Your task to perform on an android device: open a new tab in the chrome app Image 0: 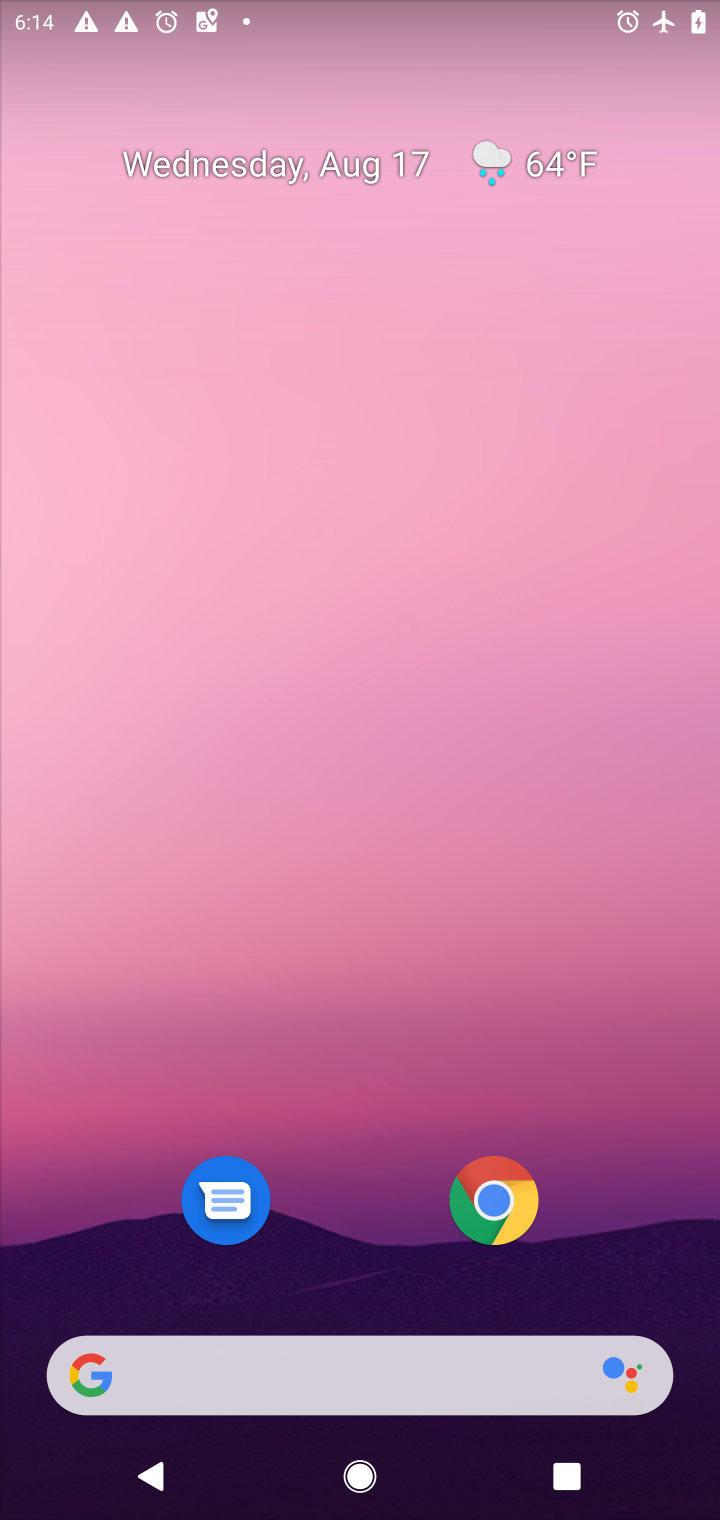
Step 0: drag from (334, 1292) to (291, 225)
Your task to perform on an android device: open a new tab in the chrome app Image 1: 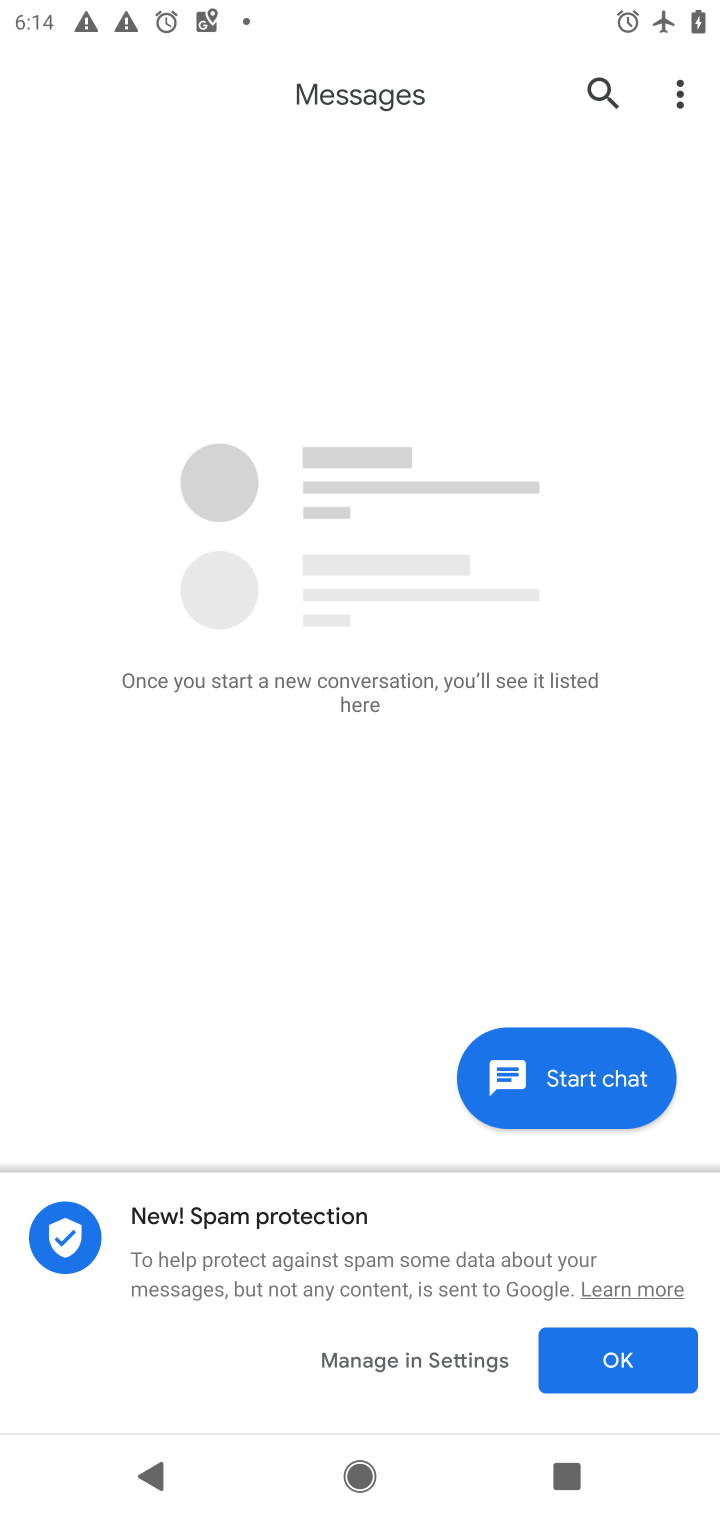
Step 1: press home button
Your task to perform on an android device: open a new tab in the chrome app Image 2: 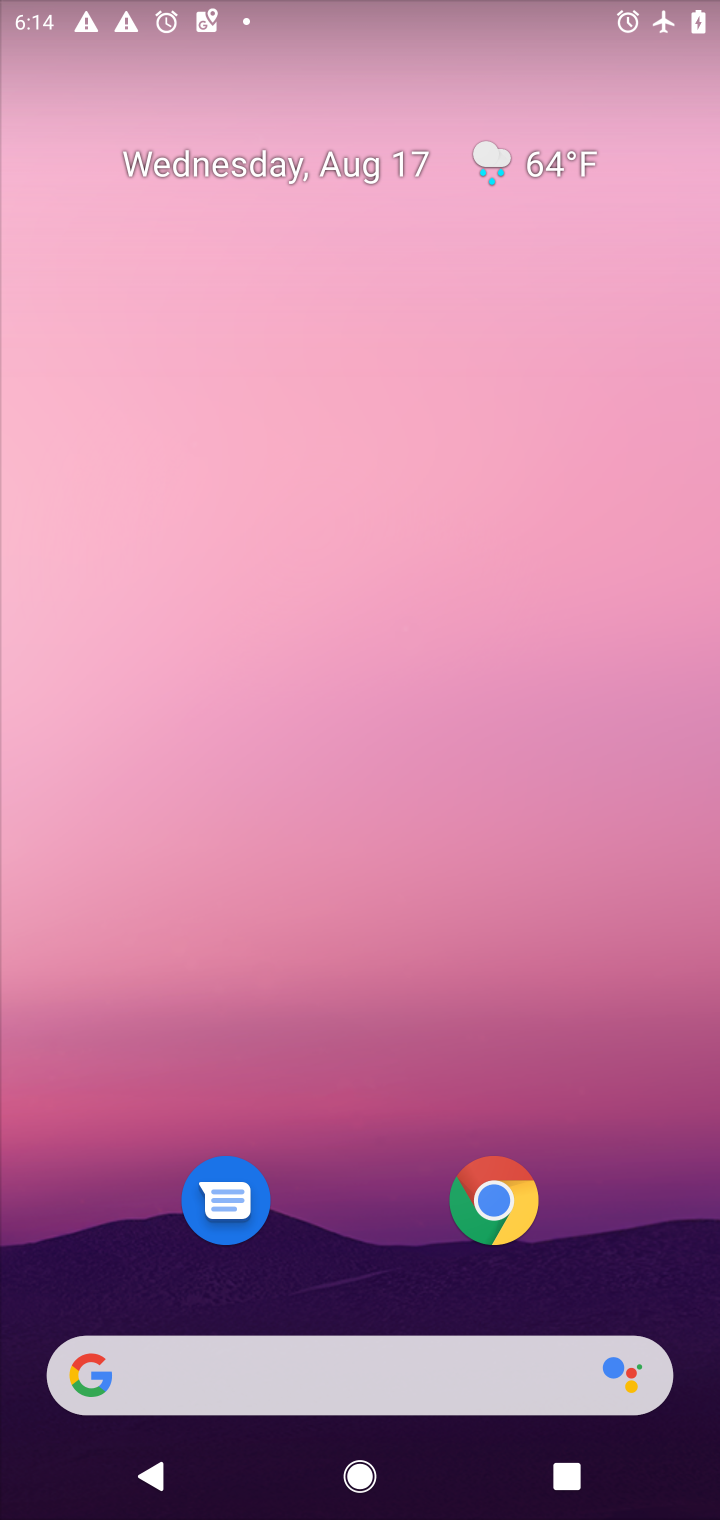
Step 2: click (494, 1199)
Your task to perform on an android device: open a new tab in the chrome app Image 3: 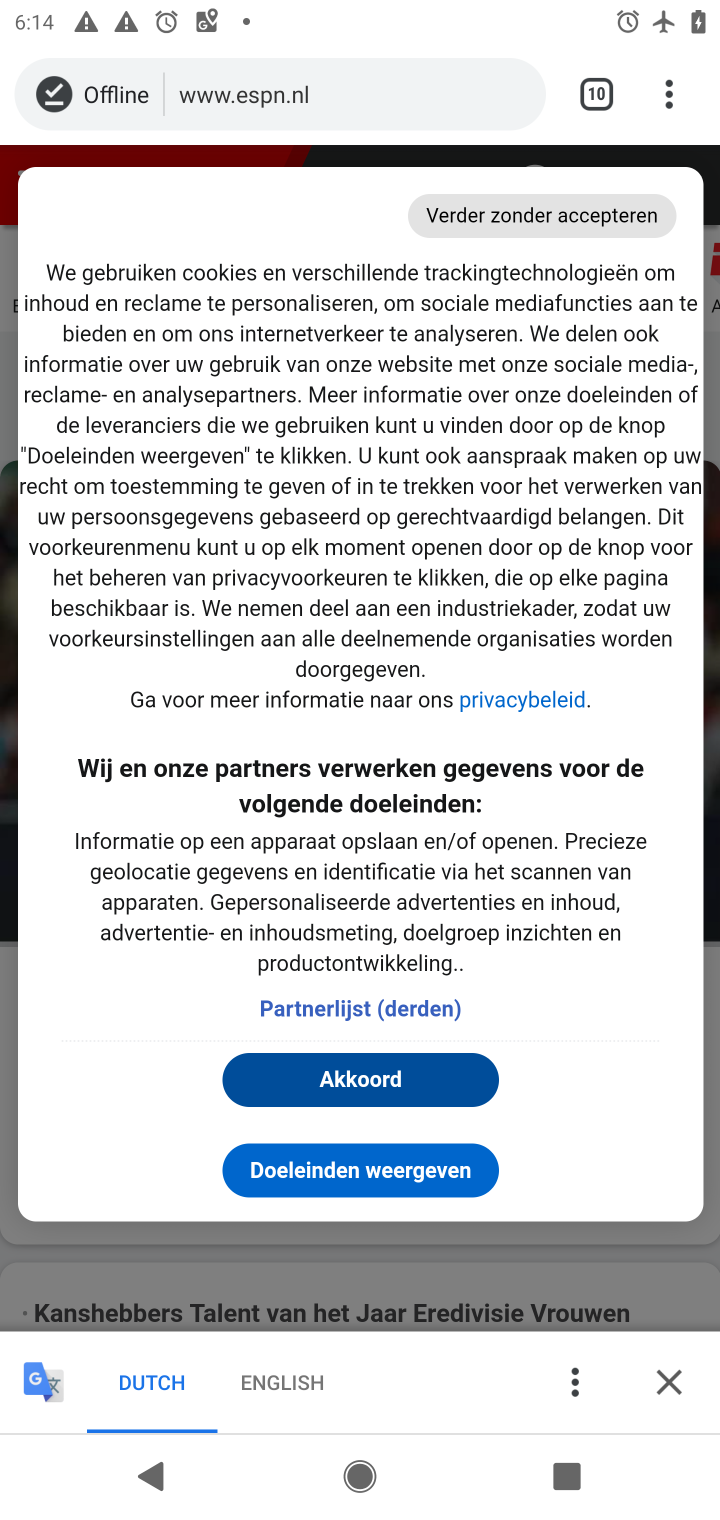
Step 3: task complete